Your task to perform on an android device: Go to Google Image 0: 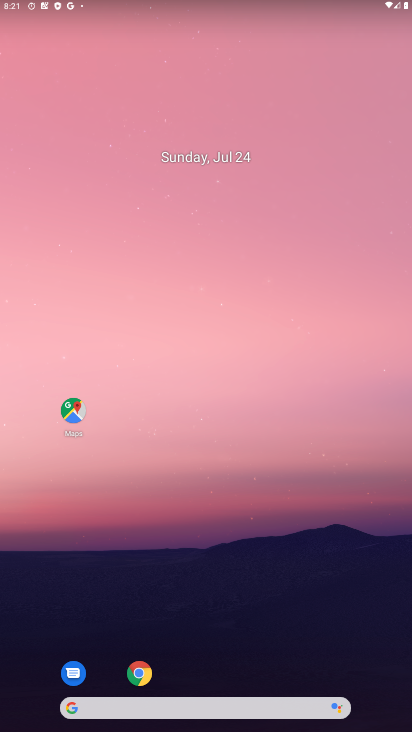
Step 0: click (128, 707)
Your task to perform on an android device: Go to Google Image 1: 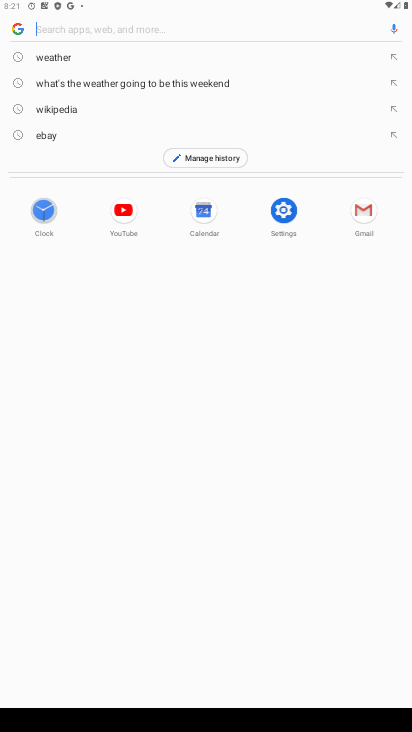
Step 1: task complete